Your task to perform on an android device: change the clock display to analog Image 0: 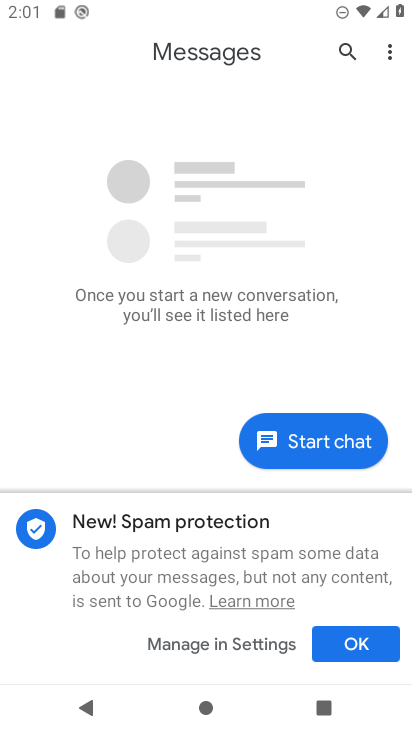
Step 0: press home button
Your task to perform on an android device: change the clock display to analog Image 1: 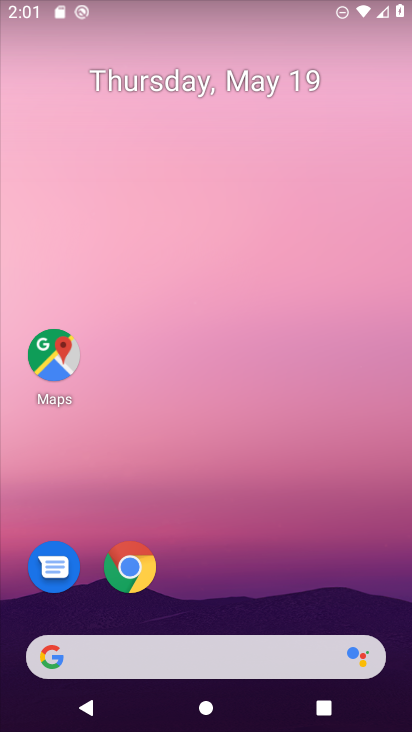
Step 1: drag from (267, 562) to (255, 67)
Your task to perform on an android device: change the clock display to analog Image 2: 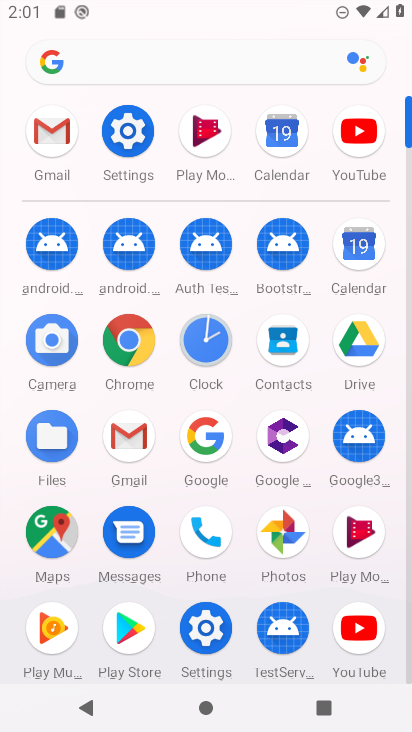
Step 2: click (213, 342)
Your task to perform on an android device: change the clock display to analog Image 3: 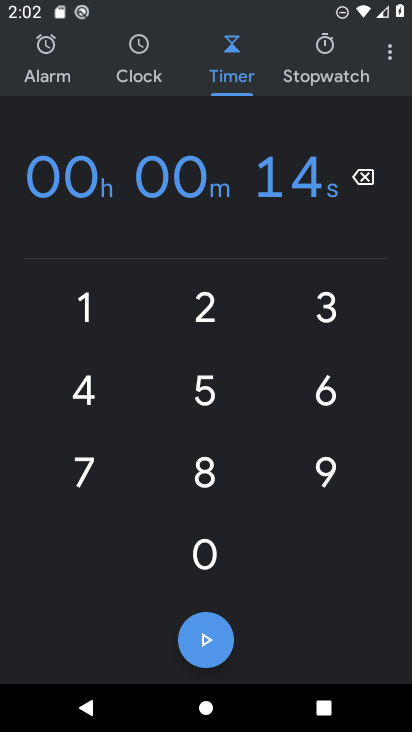
Step 3: click (142, 33)
Your task to perform on an android device: change the clock display to analog Image 4: 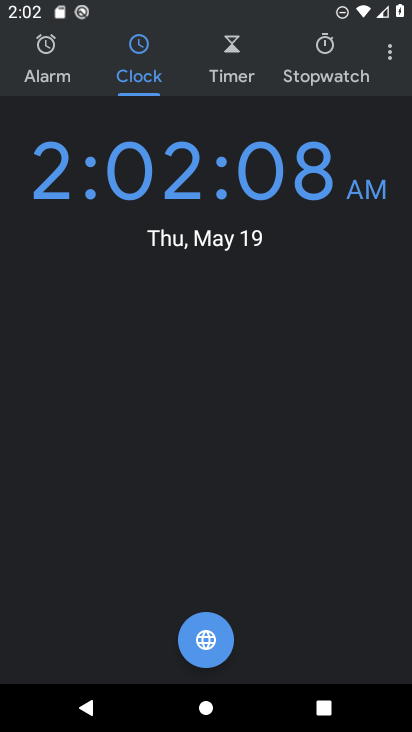
Step 4: click (389, 56)
Your task to perform on an android device: change the clock display to analog Image 5: 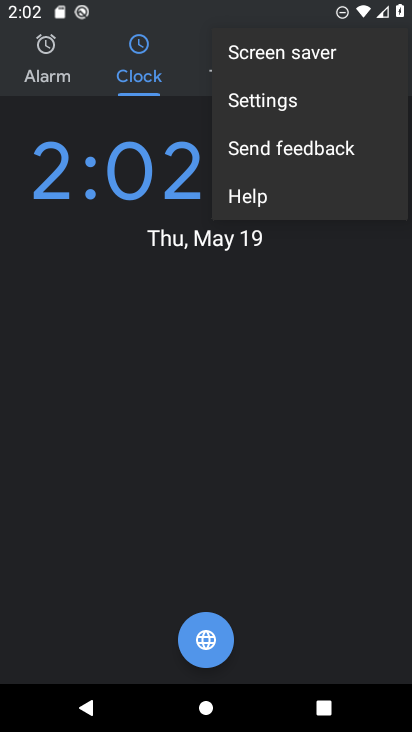
Step 5: click (325, 101)
Your task to perform on an android device: change the clock display to analog Image 6: 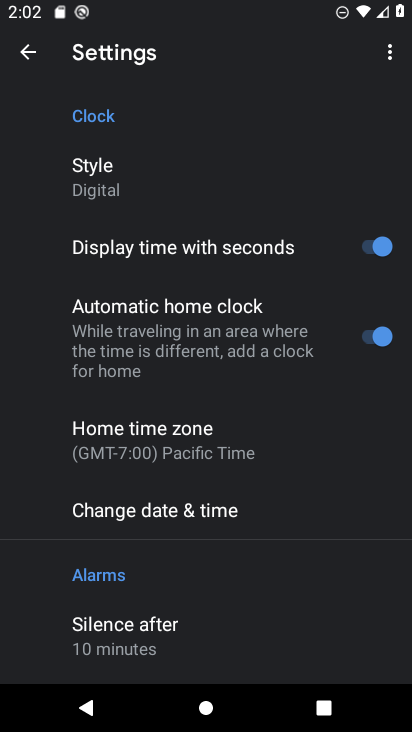
Step 6: click (149, 183)
Your task to perform on an android device: change the clock display to analog Image 7: 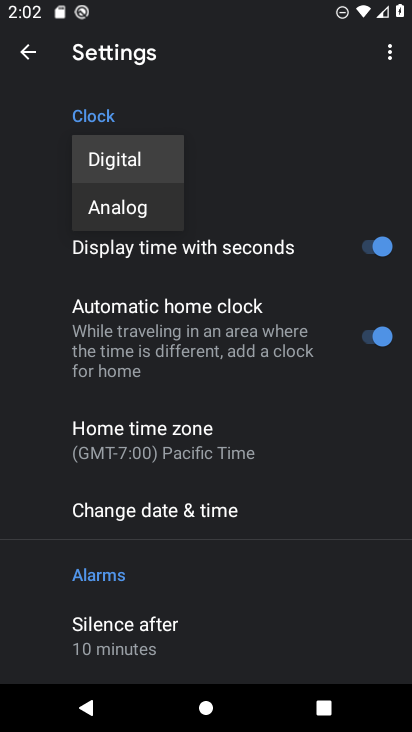
Step 7: click (151, 205)
Your task to perform on an android device: change the clock display to analog Image 8: 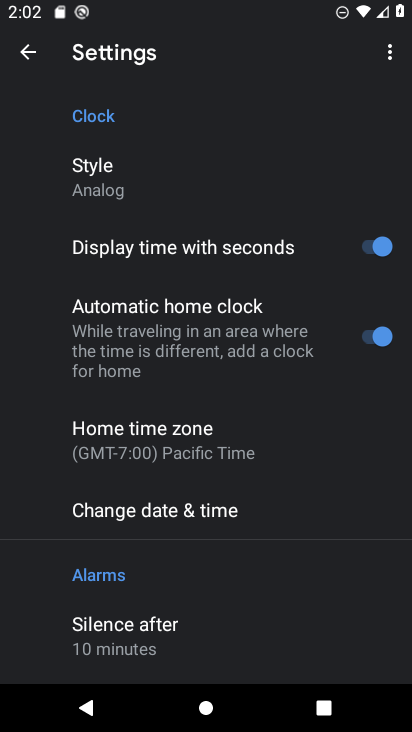
Step 8: click (38, 58)
Your task to perform on an android device: change the clock display to analog Image 9: 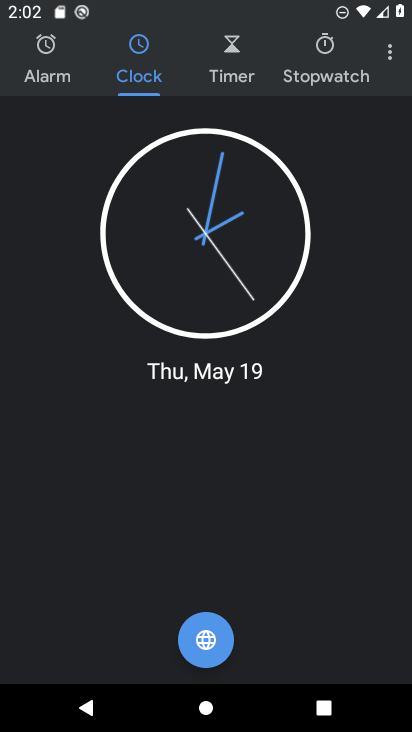
Step 9: task complete